Your task to perform on an android device: Open accessibility settings Image 0: 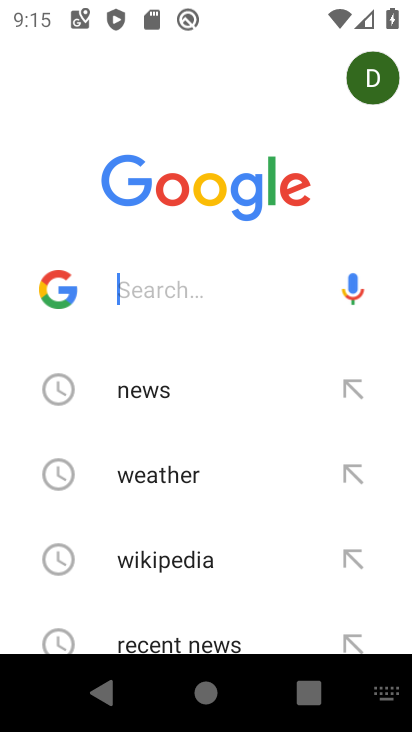
Step 0: press home button
Your task to perform on an android device: Open accessibility settings Image 1: 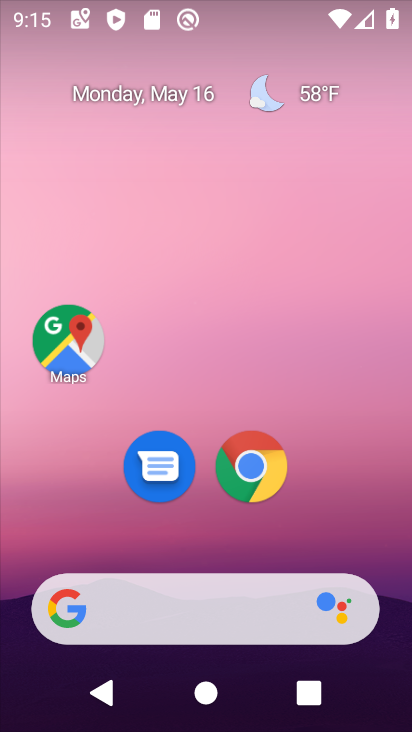
Step 1: drag from (285, 540) to (304, 124)
Your task to perform on an android device: Open accessibility settings Image 2: 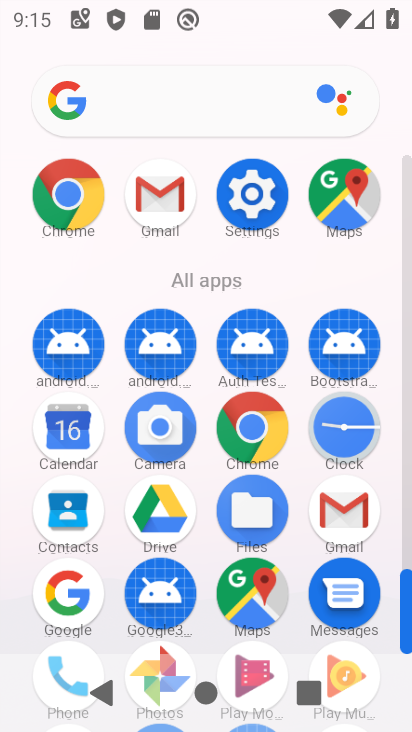
Step 2: click (261, 195)
Your task to perform on an android device: Open accessibility settings Image 3: 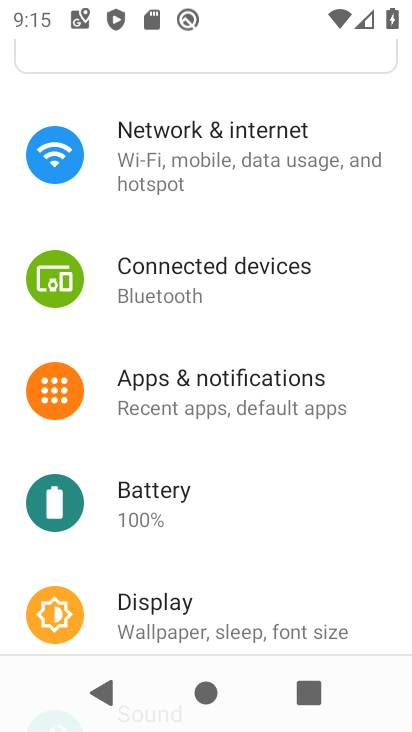
Step 3: drag from (275, 592) to (308, 249)
Your task to perform on an android device: Open accessibility settings Image 4: 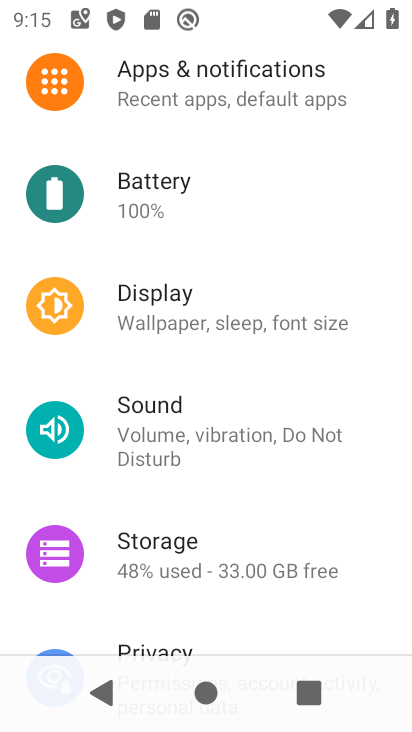
Step 4: drag from (263, 616) to (295, 200)
Your task to perform on an android device: Open accessibility settings Image 5: 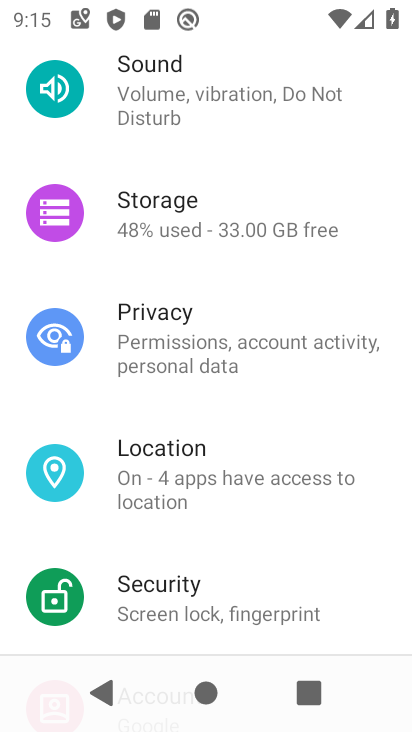
Step 5: drag from (275, 601) to (330, 192)
Your task to perform on an android device: Open accessibility settings Image 6: 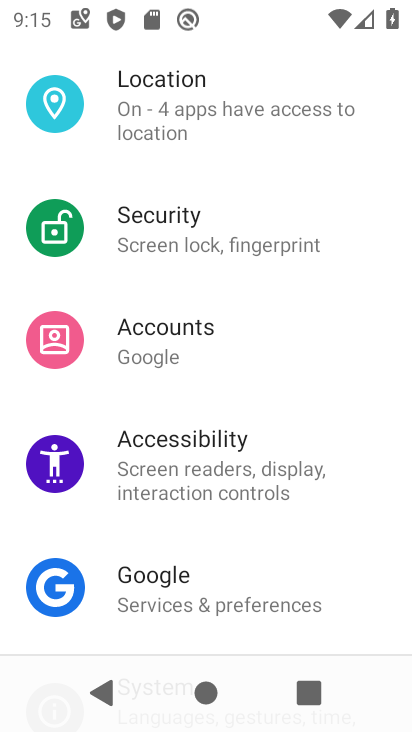
Step 6: click (161, 459)
Your task to perform on an android device: Open accessibility settings Image 7: 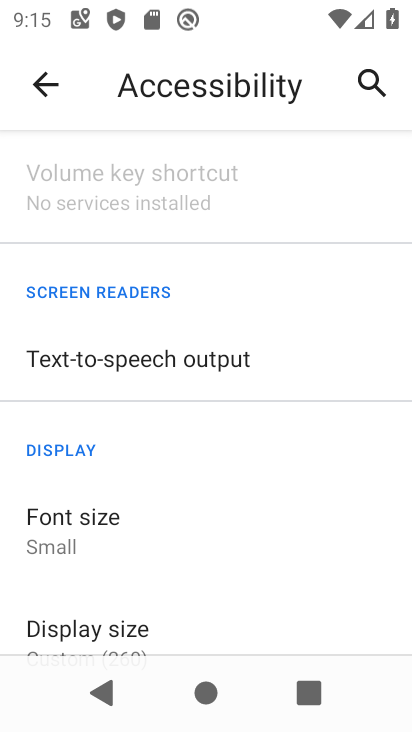
Step 7: task complete